Your task to perform on an android device: Open calendar and show me the fourth week of next month Image 0: 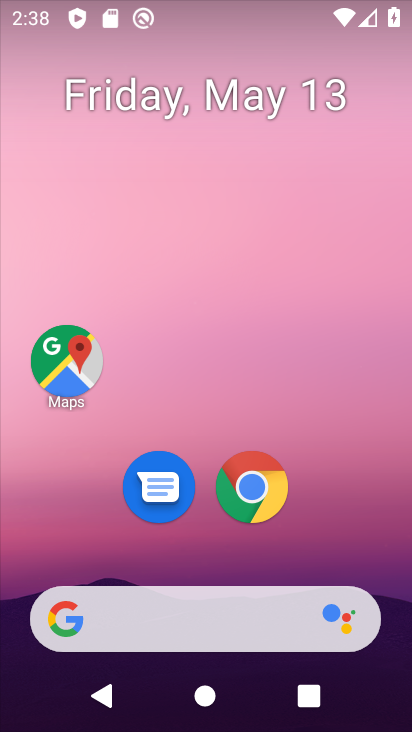
Step 0: drag from (325, 491) to (317, 11)
Your task to perform on an android device: Open calendar and show me the fourth week of next month Image 1: 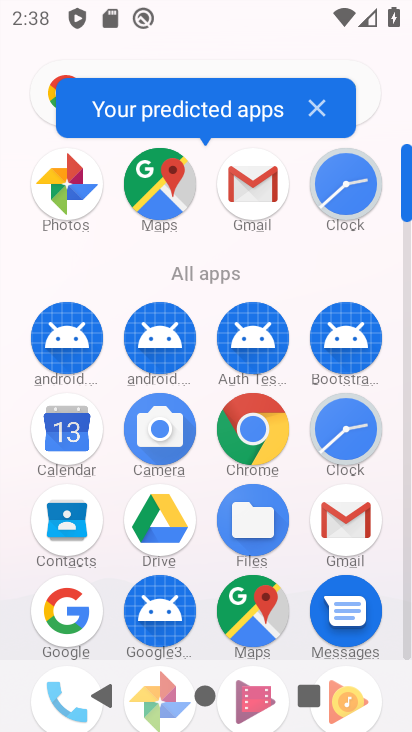
Step 1: click (68, 449)
Your task to perform on an android device: Open calendar and show me the fourth week of next month Image 2: 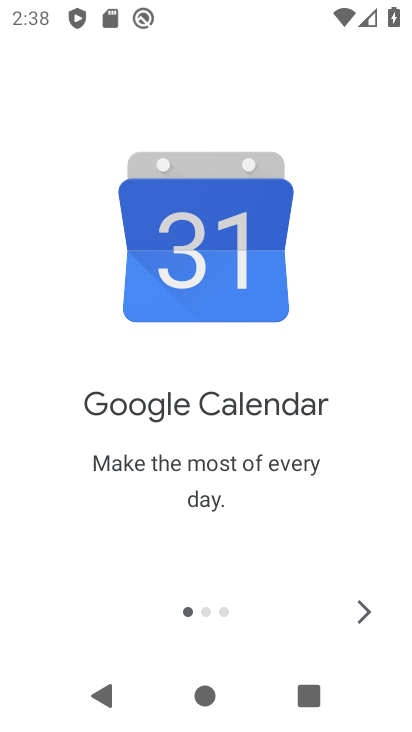
Step 2: click (355, 611)
Your task to perform on an android device: Open calendar and show me the fourth week of next month Image 3: 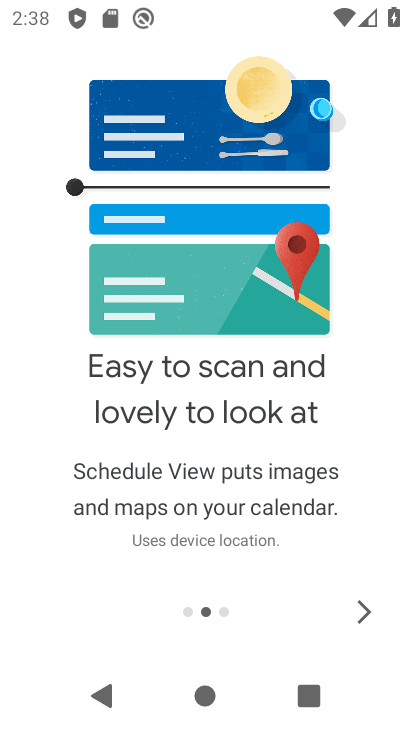
Step 3: click (355, 610)
Your task to perform on an android device: Open calendar and show me the fourth week of next month Image 4: 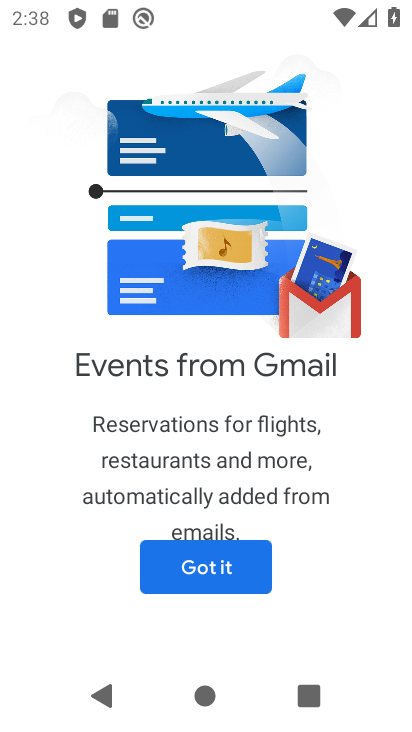
Step 4: click (196, 577)
Your task to perform on an android device: Open calendar and show me the fourth week of next month Image 5: 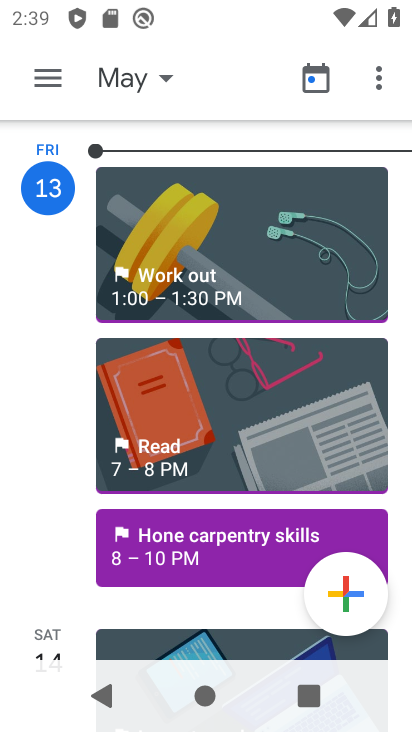
Step 5: click (119, 83)
Your task to perform on an android device: Open calendar and show me the fourth week of next month Image 6: 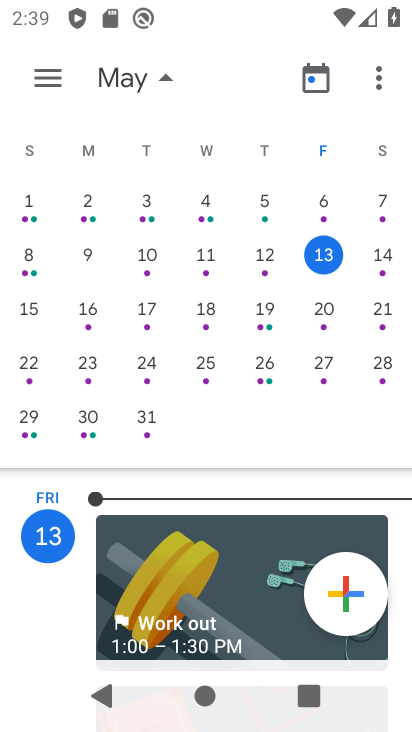
Step 6: drag from (332, 320) to (13, 304)
Your task to perform on an android device: Open calendar and show me the fourth week of next month Image 7: 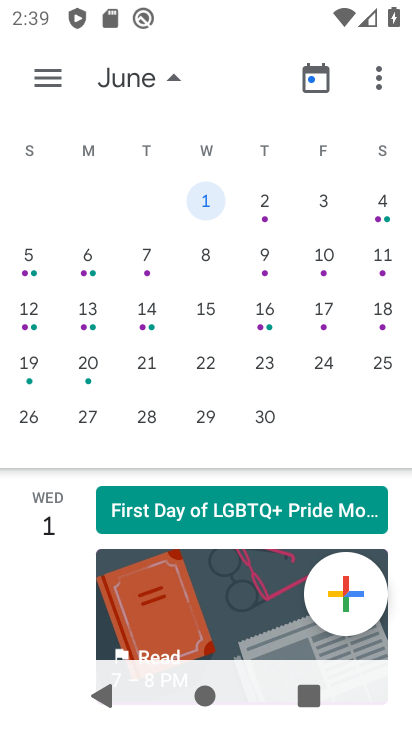
Step 7: click (149, 419)
Your task to perform on an android device: Open calendar and show me the fourth week of next month Image 8: 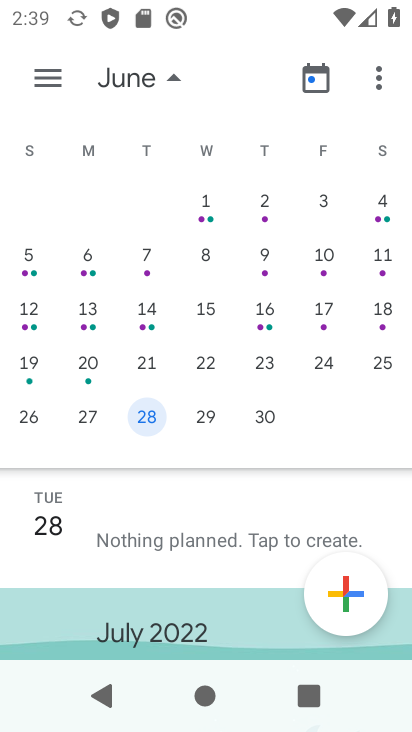
Step 8: task complete